Your task to perform on an android device: set the timer Image 0: 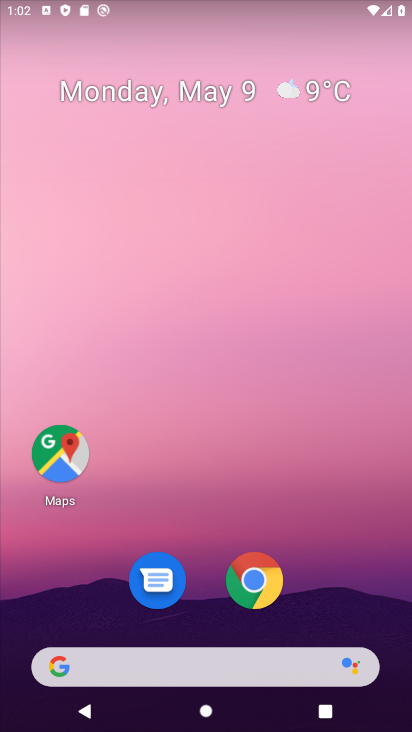
Step 0: drag from (326, 519) to (266, 107)
Your task to perform on an android device: set the timer Image 1: 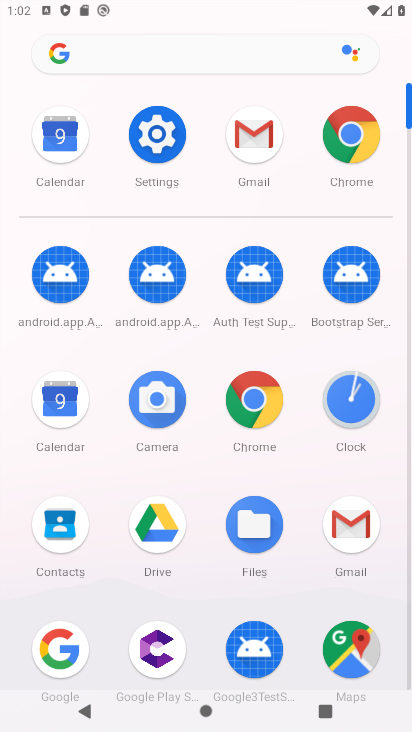
Step 1: click (347, 410)
Your task to perform on an android device: set the timer Image 2: 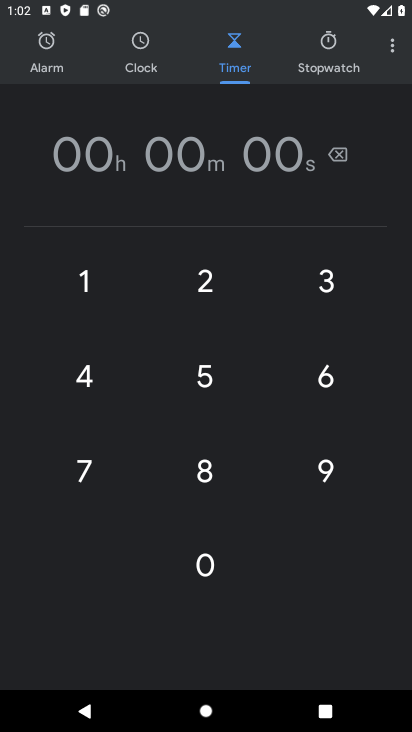
Step 2: click (66, 281)
Your task to perform on an android device: set the timer Image 3: 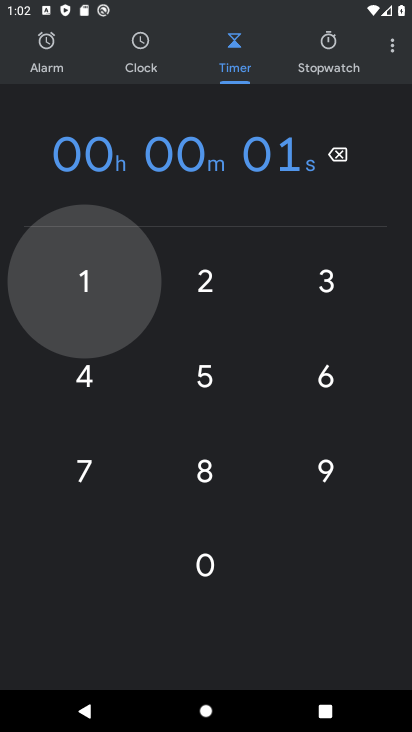
Step 3: click (78, 278)
Your task to perform on an android device: set the timer Image 4: 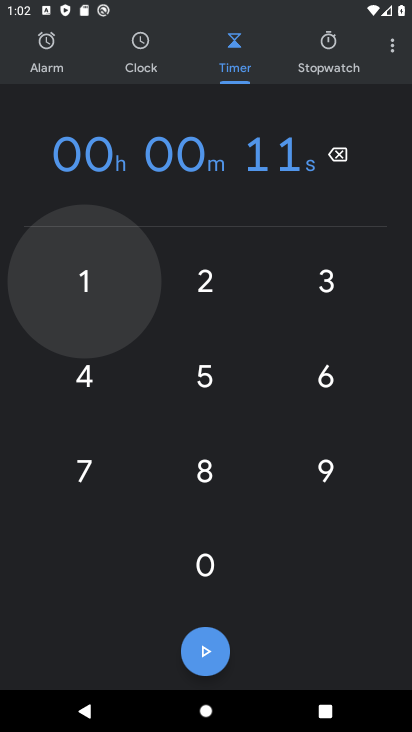
Step 4: click (79, 279)
Your task to perform on an android device: set the timer Image 5: 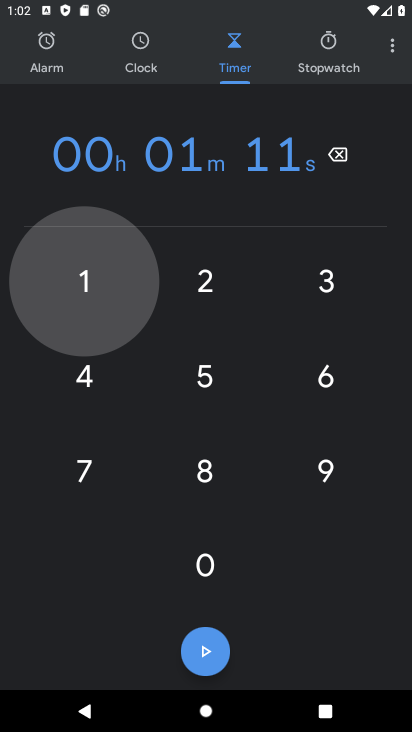
Step 5: click (82, 280)
Your task to perform on an android device: set the timer Image 6: 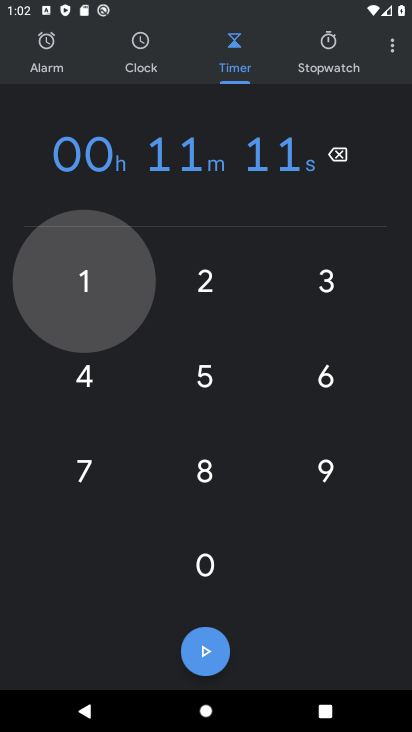
Step 6: click (82, 280)
Your task to perform on an android device: set the timer Image 7: 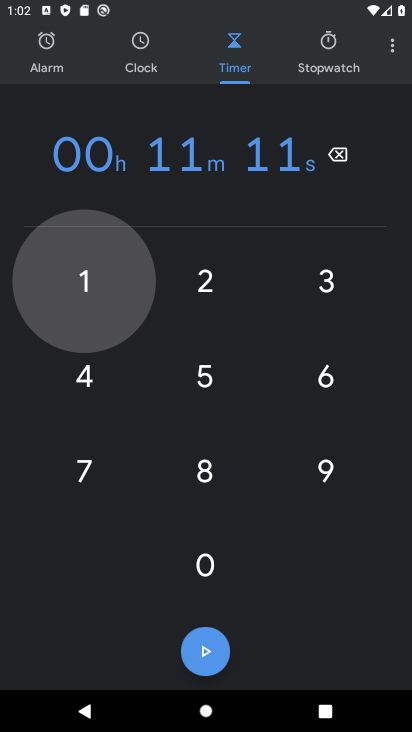
Step 7: click (82, 280)
Your task to perform on an android device: set the timer Image 8: 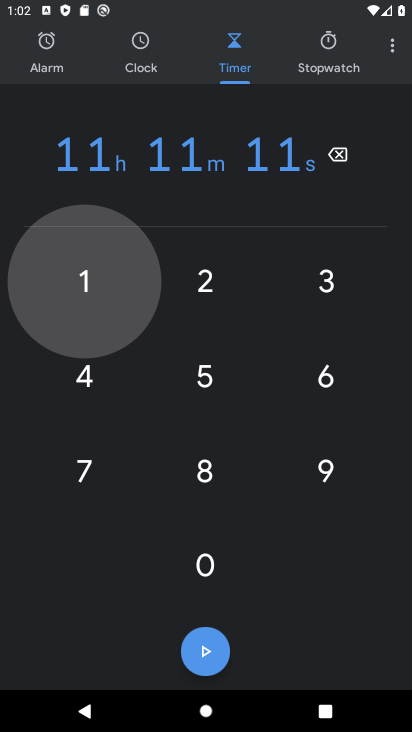
Step 8: click (83, 281)
Your task to perform on an android device: set the timer Image 9: 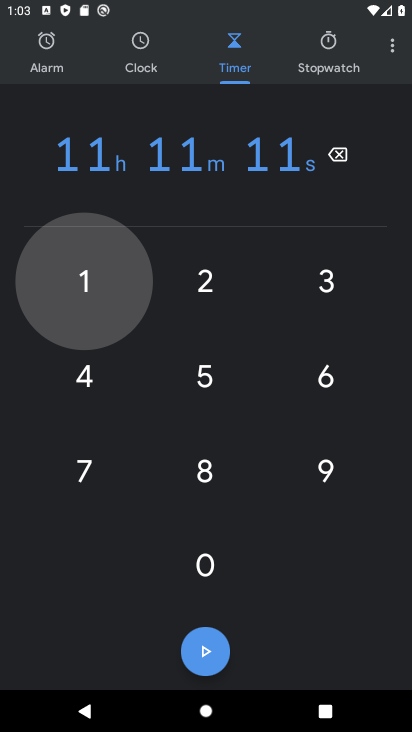
Step 9: click (83, 281)
Your task to perform on an android device: set the timer Image 10: 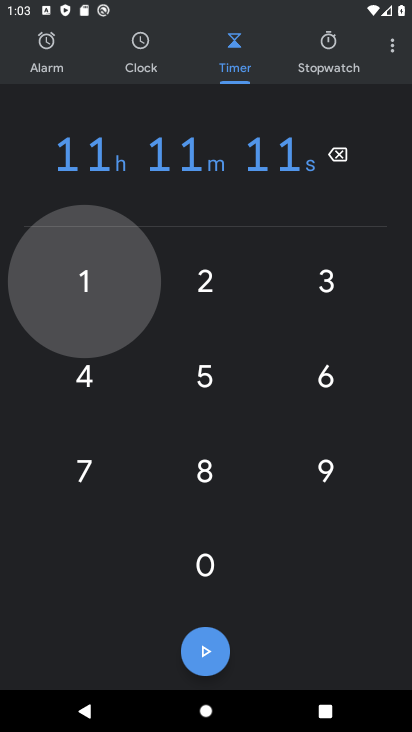
Step 10: click (83, 281)
Your task to perform on an android device: set the timer Image 11: 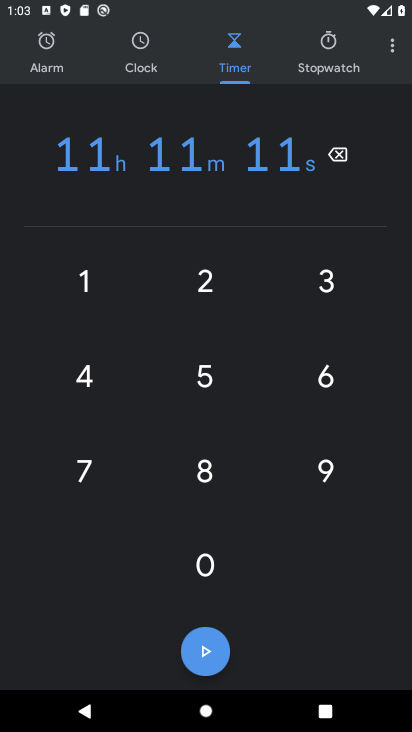
Step 11: click (200, 637)
Your task to perform on an android device: set the timer Image 12: 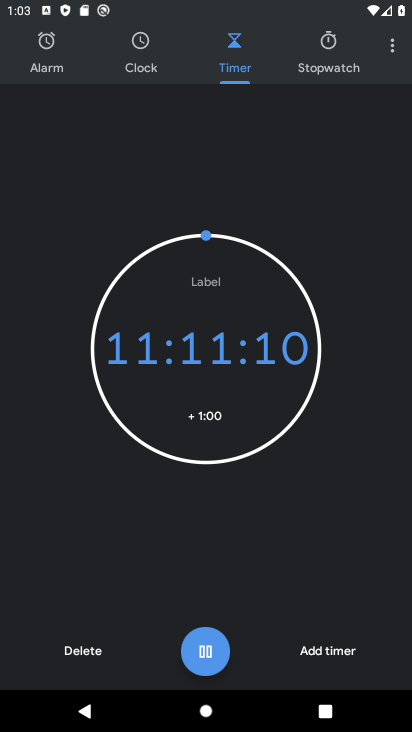
Step 12: task complete